Your task to perform on an android device: change notification settings in the gmail app Image 0: 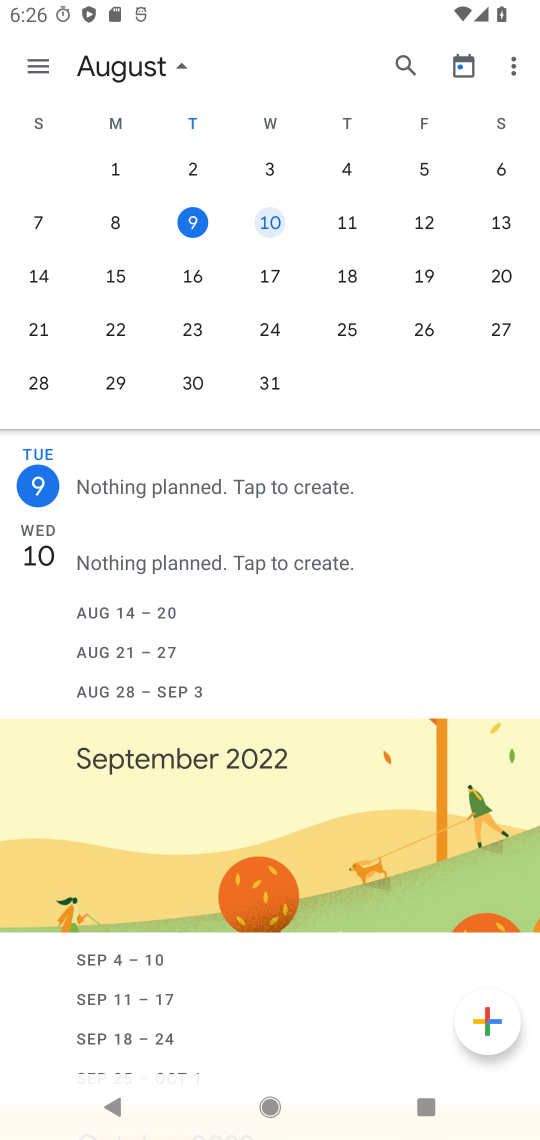
Step 0: press home button
Your task to perform on an android device: change notification settings in the gmail app Image 1: 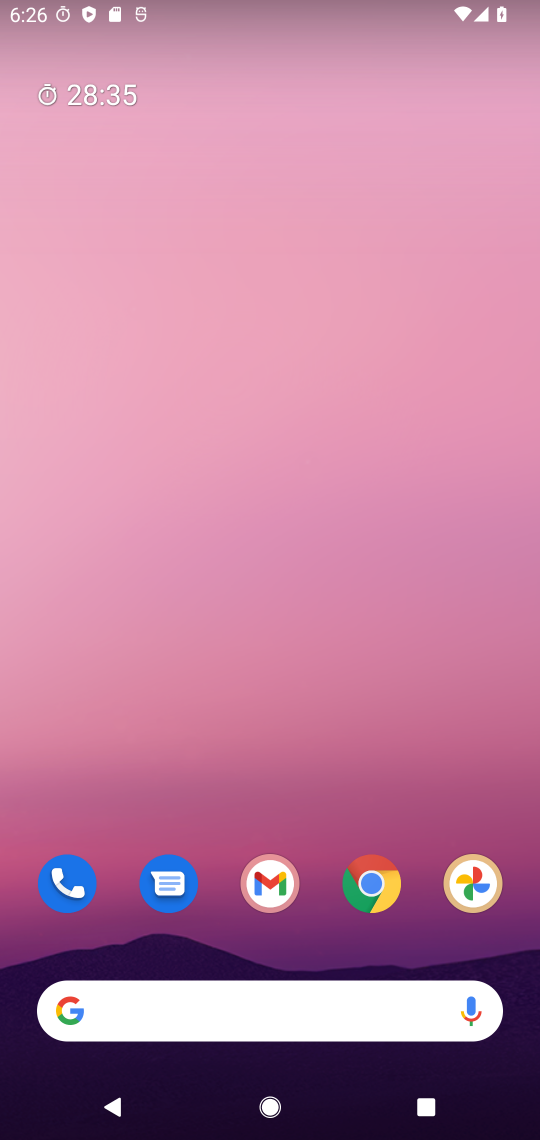
Step 1: drag from (294, 801) to (304, 90)
Your task to perform on an android device: change notification settings in the gmail app Image 2: 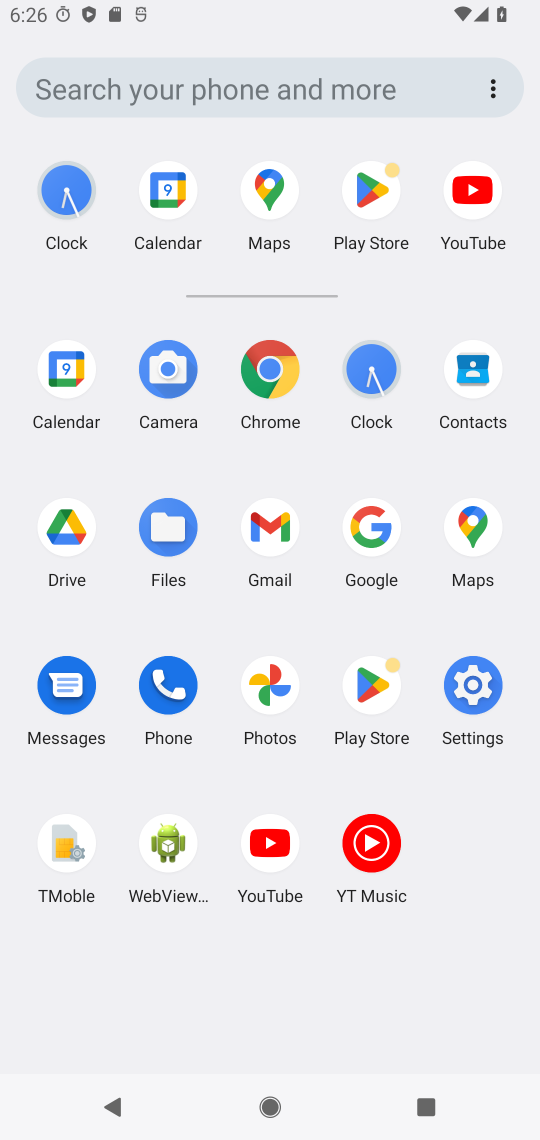
Step 2: click (262, 519)
Your task to perform on an android device: change notification settings in the gmail app Image 3: 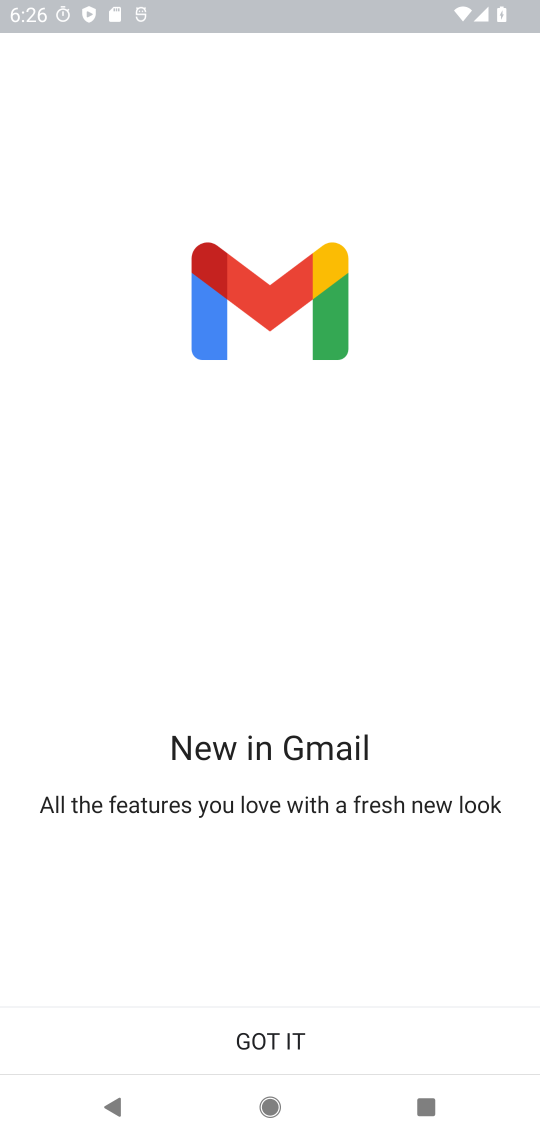
Step 3: click (287, 1058)
Your task to perform on an android device: change notification settings in the gmail app Image 4: 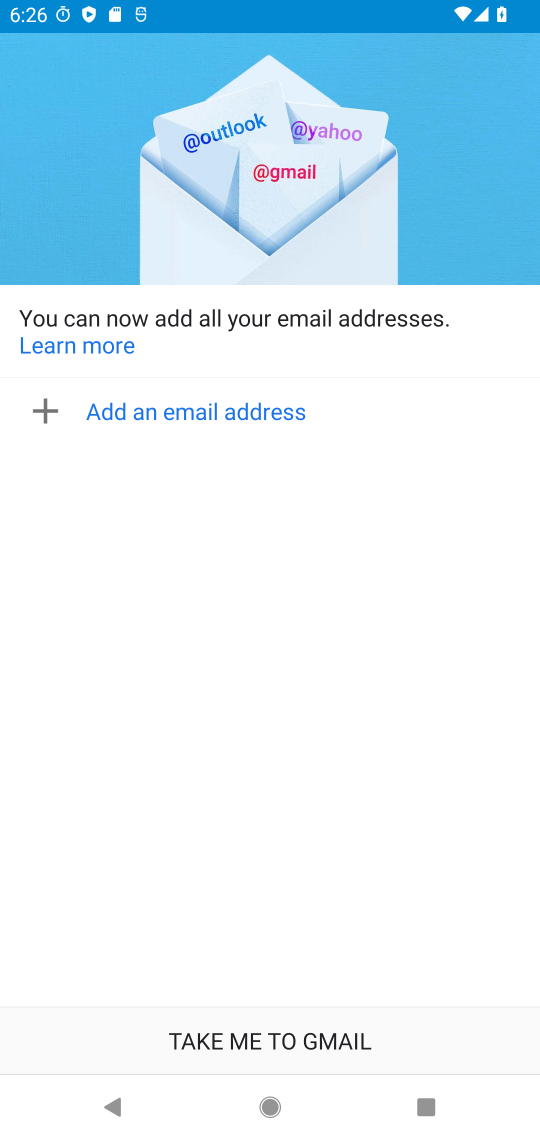
Step 4: click (287, 1058)
Your task to perform on an android device: change notification settings in the gmail app Image 5: 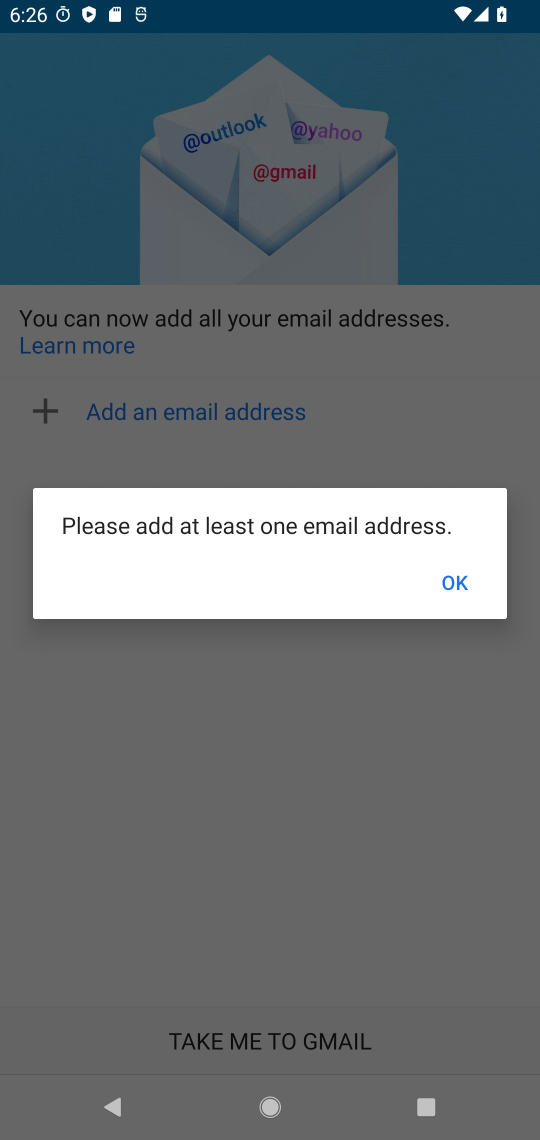
Step 5: click (446, 580)
Your task to perform on an android device: change notification settings in the gmail app Image 6: 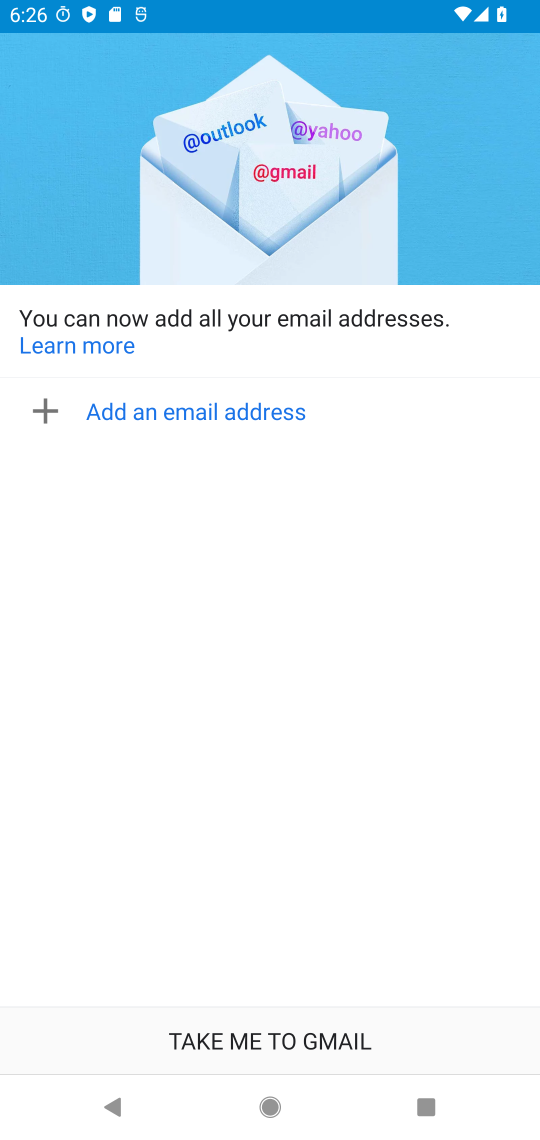
Step 6: task complete